Your task to perform on an android device: turn off notifications settings in the gmail app Image 0: 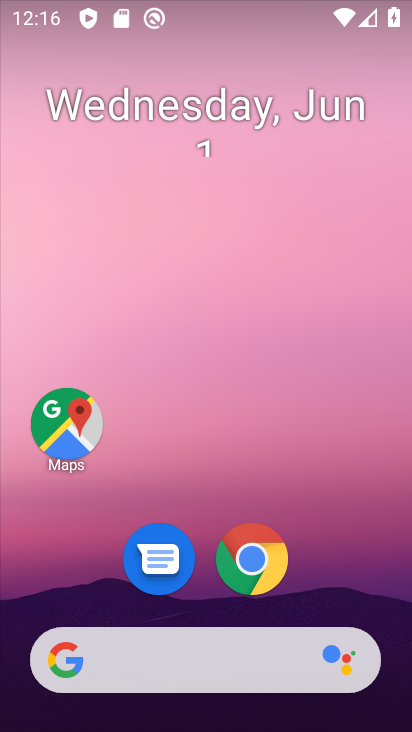
Step 0: drag from (280, 586) to (337, 269)
Your task to perform on an android device: turn off notifications settings in the gmail app Image 1: 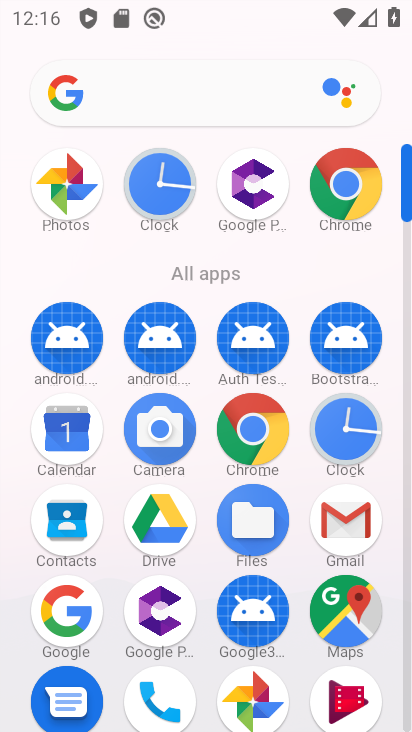
Step 1: click (342, 519)
Your task to perform on an android device: turn off notifications settings in the gmail app Image 2: 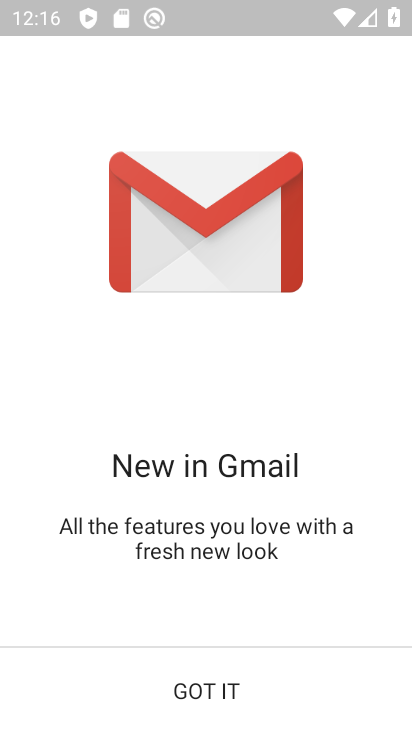
Step 2: click (204, 677)
Your task to perform on an android device: turn off notifications settings in the gmail app Image 3: 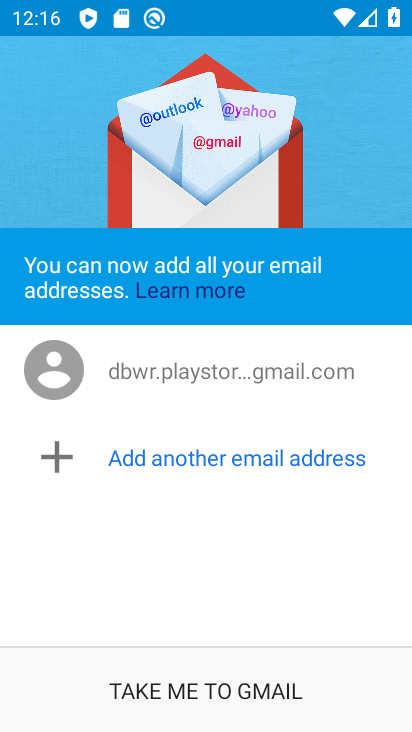
Step 3: click (205, 680)
Your task to perform on an android device: turn off notifications settings in the gmail app Image 4: 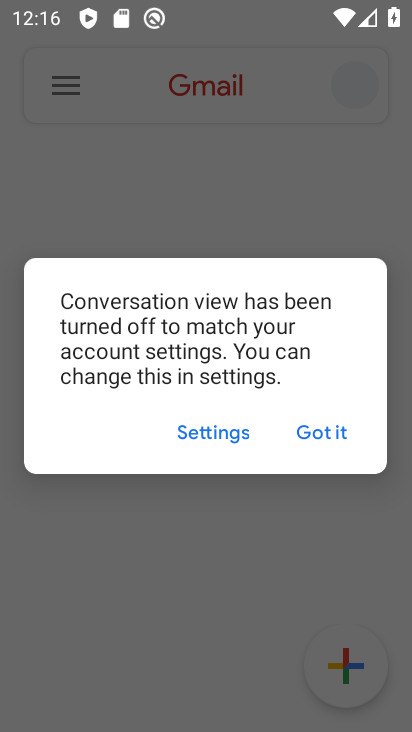
Step 4: click (308, 432)
Your task to perform on an android device: turn off notifications settings in the gmail app Image 5: 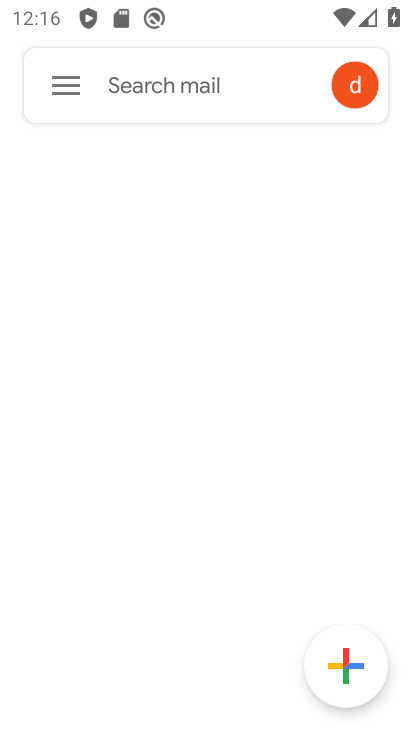
Step 5: click (62, 76)
Your task to perform on an android device: turn off notifications settings in the gmail app Image 6: 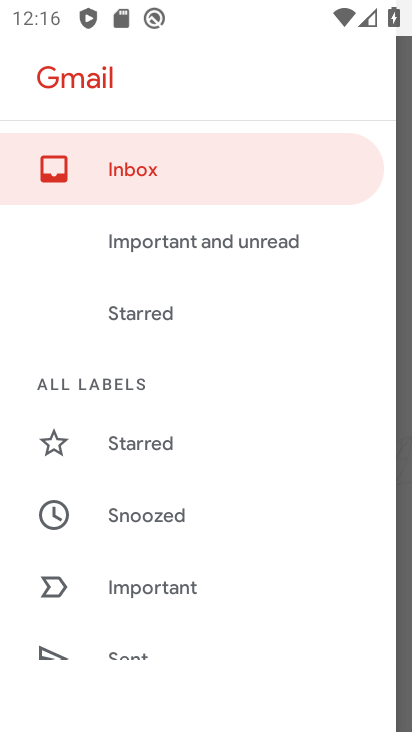
Step 6: drag from (165, 635) to (152, 252)
Your task to perform on an android device: turn off notifications settings in the gmail app Image 7: 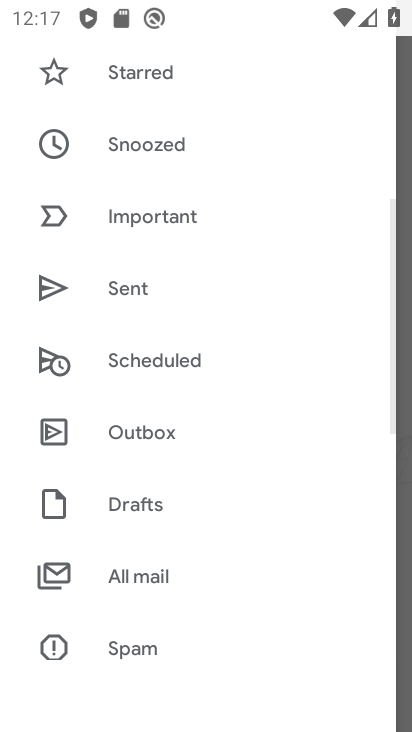
Step 7: drag from (143, 595) to (179, 232)
Your task to perform on an android device: turn off notifications settings in the gmail app Image 8: 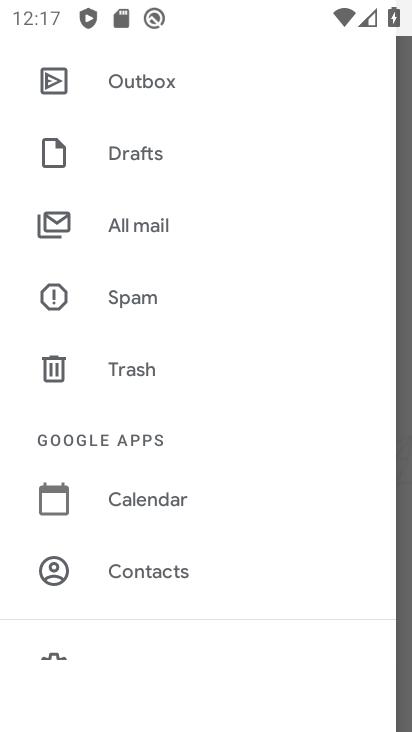
Step 8: drag from (133, 613) to (182, 245)
Your task to perform on an android device: turn off notifications settings in the gmail app Image 9: 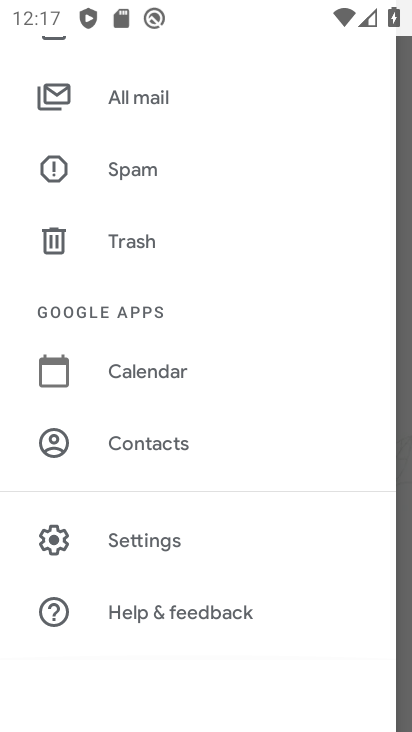
Step 9: click (128, 524)
Your task to perform on an android device: turn off notifications settings in the gmail app Image 10: 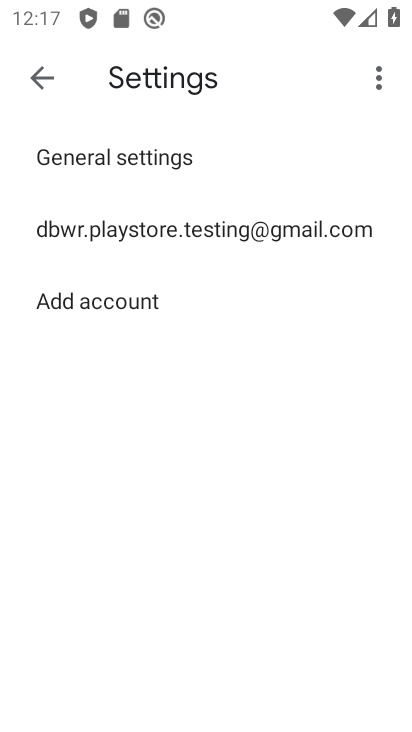
Step 10: click (89, 210)
Your task to perform on an android device: turn off notifications settings in the gmail app Image 11: 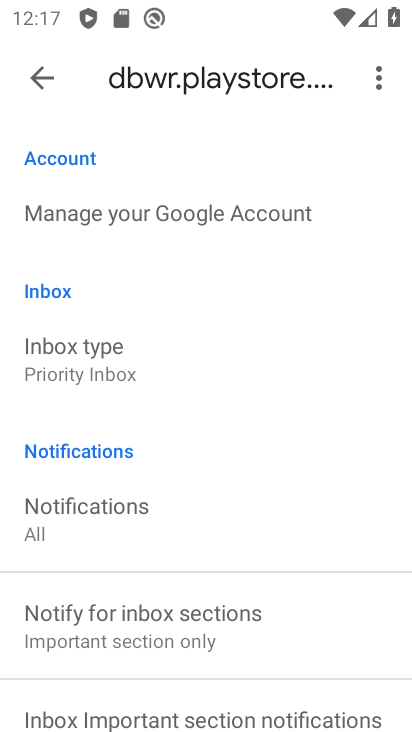
Step 11: click (81, 506)
Your task to perform on an android device: turn off notifications settings in the gmail app Image 12: 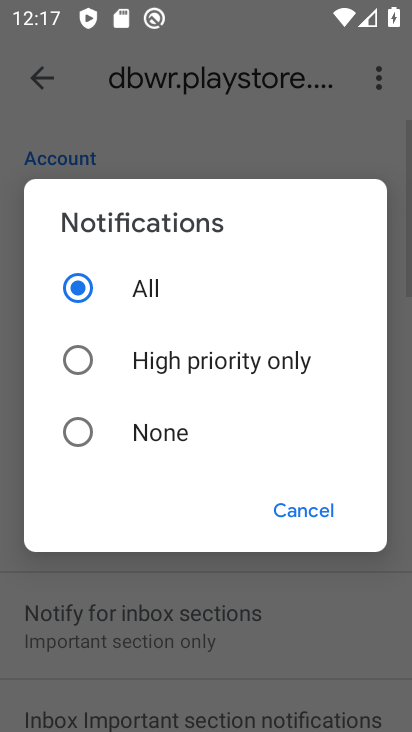
Step 12: click (134, 416)
Your task to perform on an android device: turn off notifications settings in the gmail app Image 13: 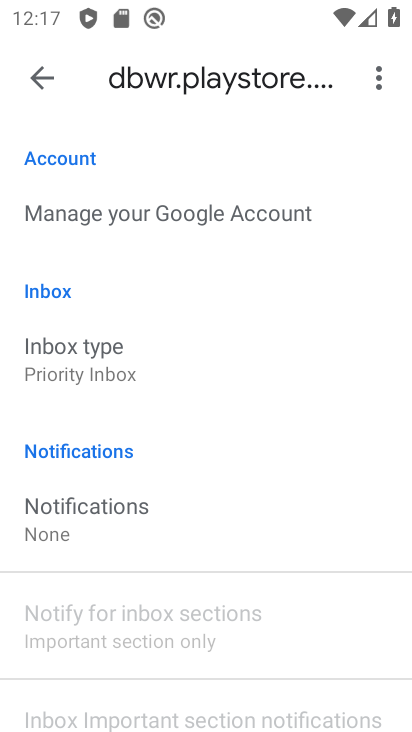
Step 13: task complete